Your task to perform on an android device: Add logitech g903 to the cart on costco.com, then select checkout. Image 0: 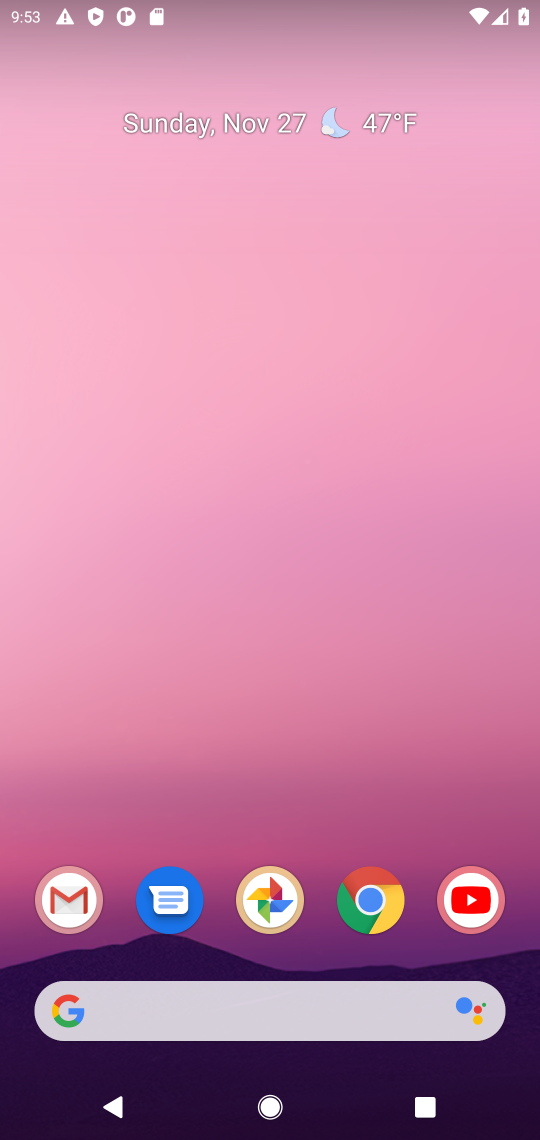
Step 0: click (371, 893)
Your task to perform on an android device: Add logitech g903 to the cart on costco.com, then select checkout. Image 1: 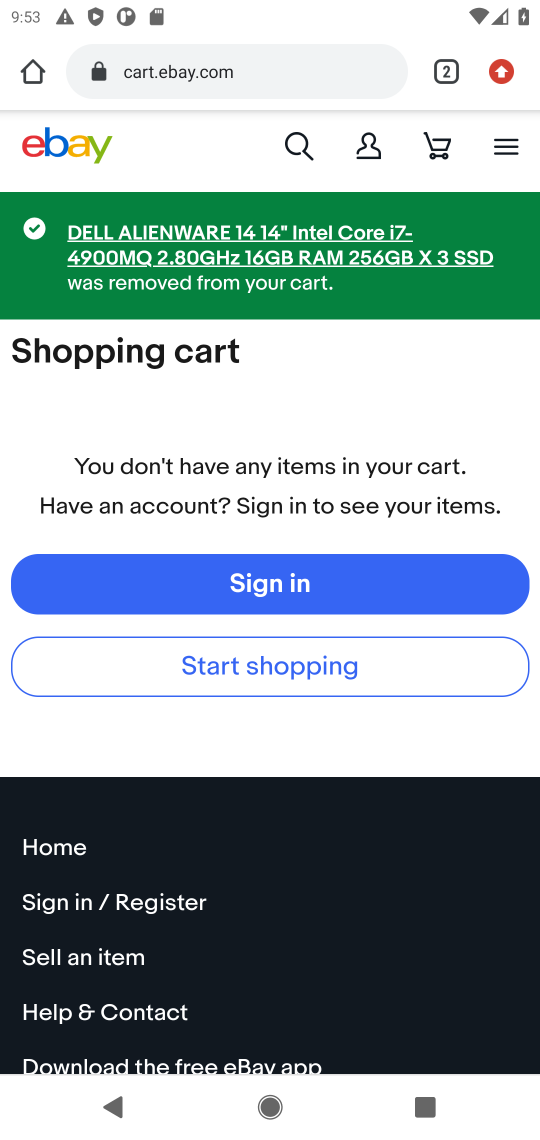
Step 1: click (220, 65)
Your task to perform on an android device: Add logitech g903 to the cart on costco.com, then select checkout. Image 2: 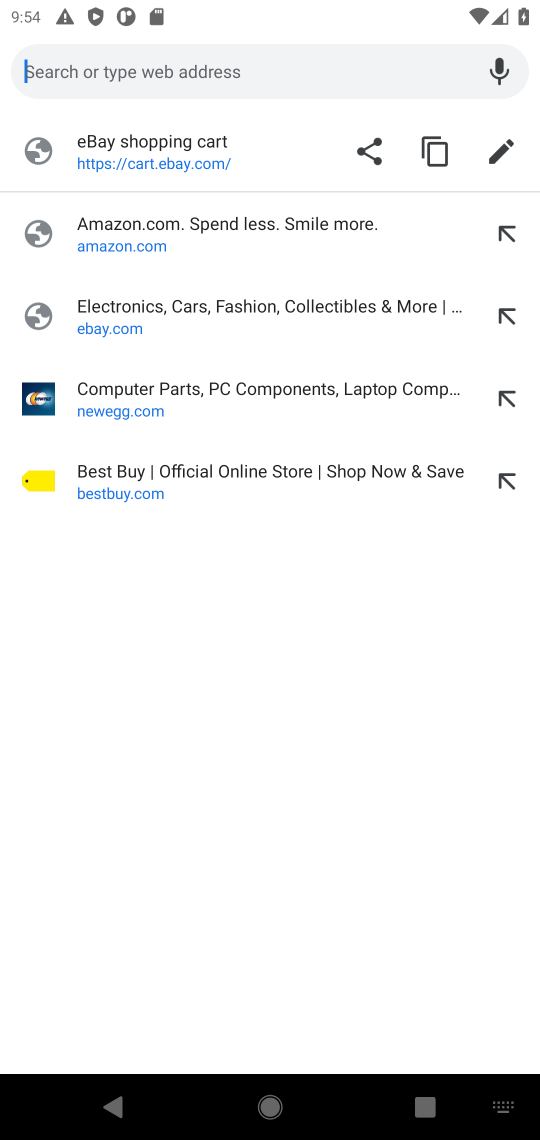
Step 2: type "costco.com"
Your task to perform on an android device: Add logitech g903 to the cart on costco.com, then select checkout. Image 3: 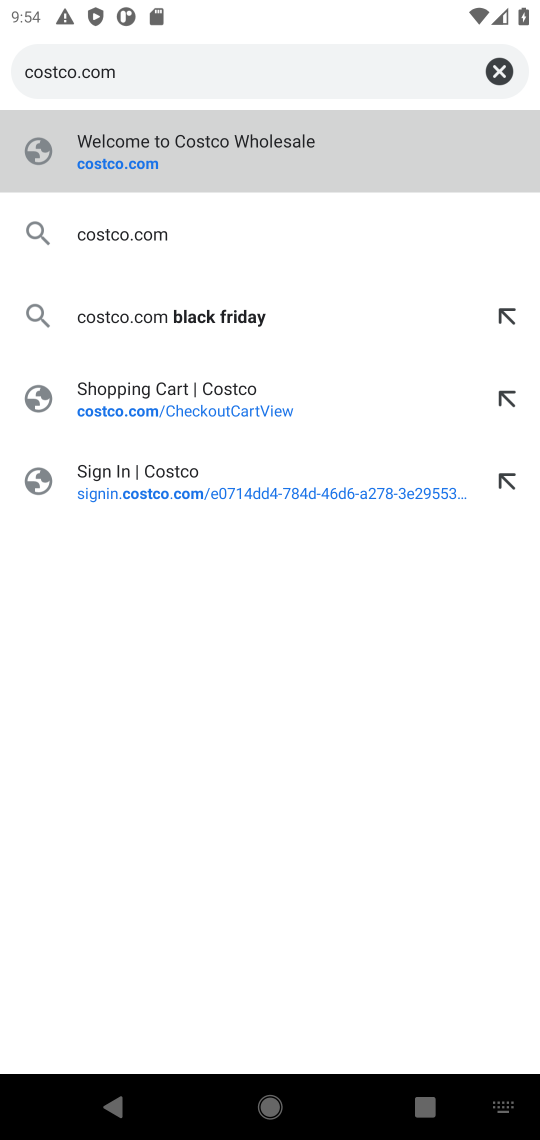
Step 3: click (126, 155)
Your task to perform on an android device: Add logitech g903 to the cart on costco.com, then select checkout. Image 4: 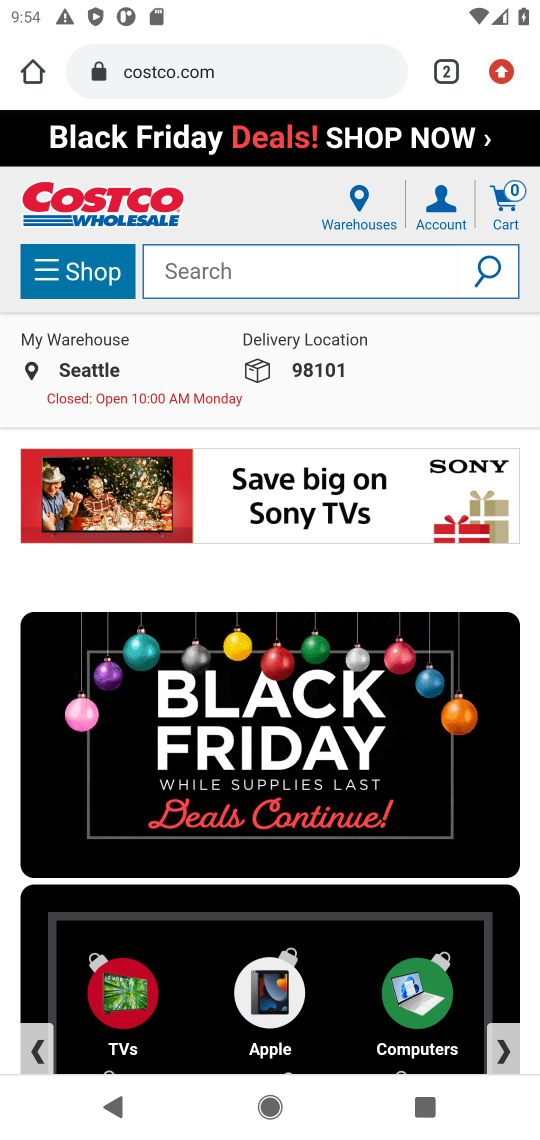
Step 4: click (230, 267)
Your task to perform on an android device: Add logitech g903 to the cart on costco.com, then select checkout. Image 5: 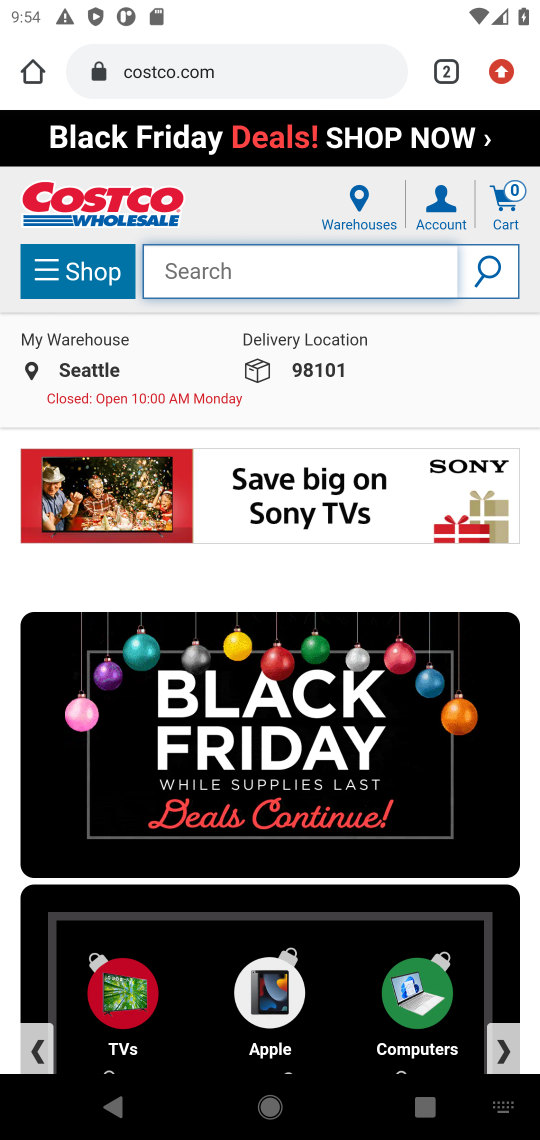
Step 5: type "logitech g903"
Your task to perform on an android device: Add logitech g903 to the cart on costco.com, then select checkout. Image 6: 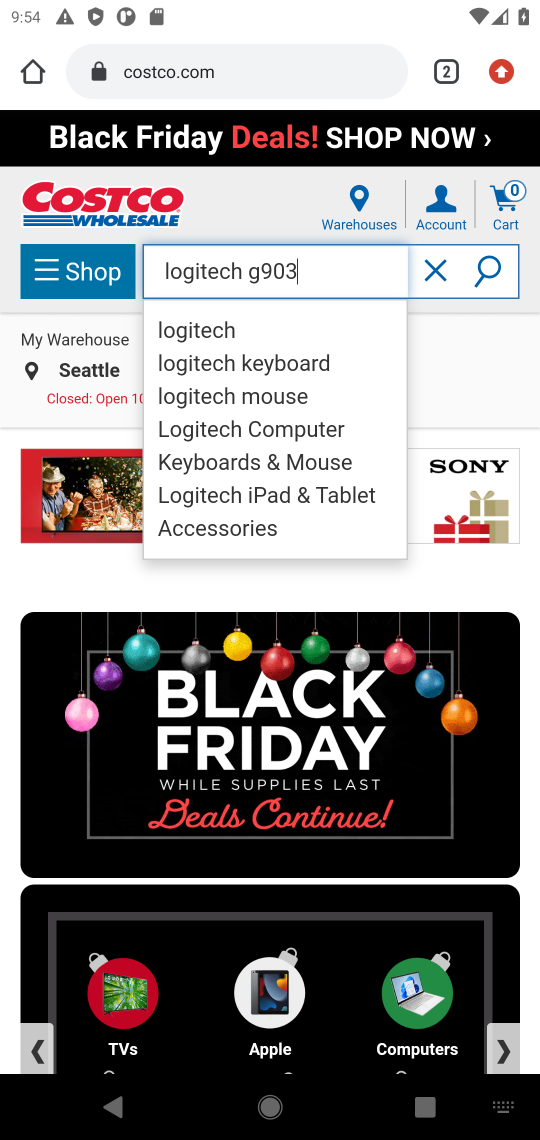
Step 6: click (488, 268)
Your task to perform on an android device: Add logitech g903 to the cart on costco.com, then select checkout. Image 7: 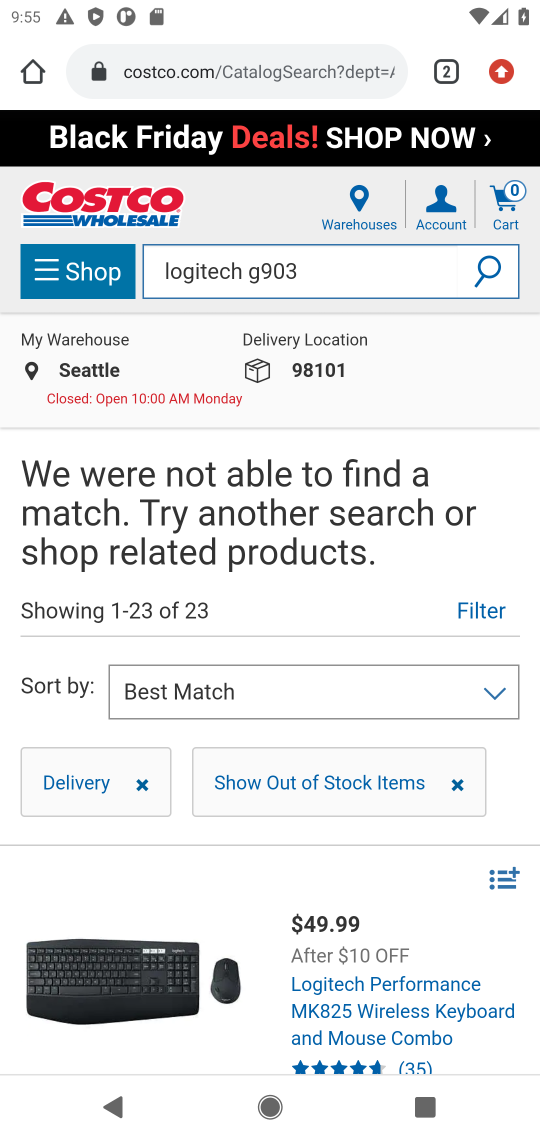
Step 7: task complete